Your task to perform on an android device: Open ESPN.com Image 0: 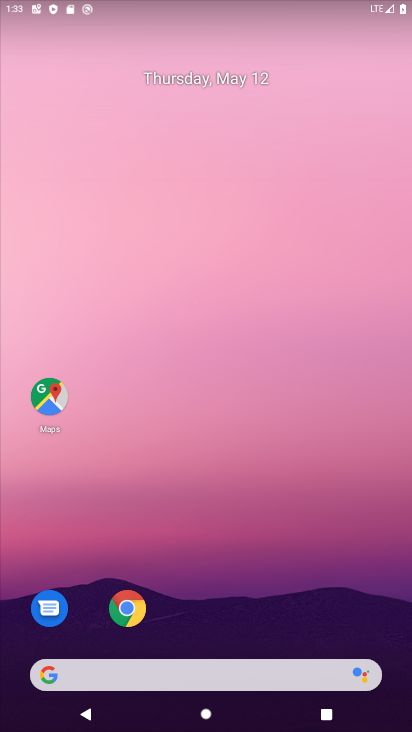
Step 0: click (132, 615)
Your task to perform on an android device: Open ESPN.com Image 1: 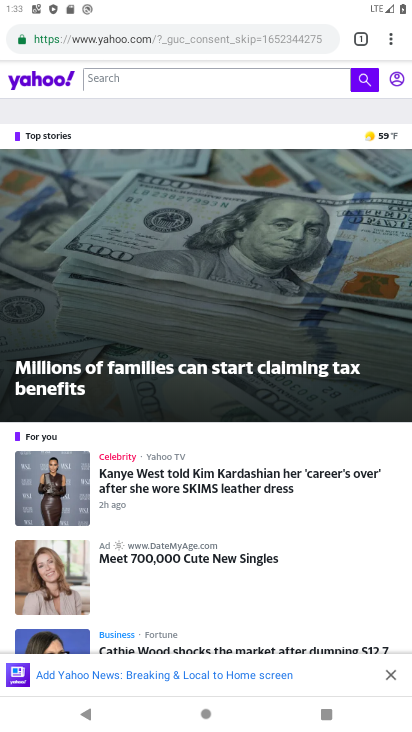
Step 1: click (103, 40)
Your task to perform on an android device: Open ESPN.com Image 2: 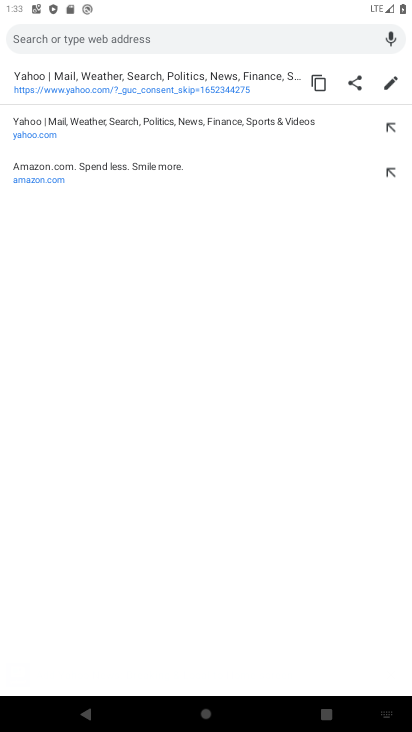
Step 2: type "espn.com"
Your task to perform on an android device: Open ESPN.com Image 3: 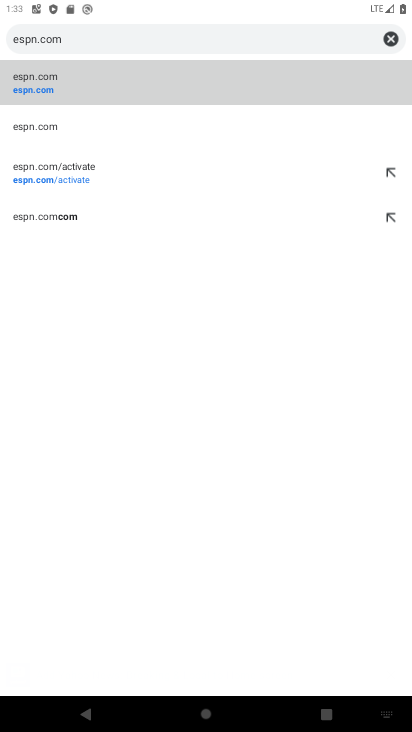
Step 3: click (34, 91)
Your task to perform on an android device: Open ESPN.com Image 4: 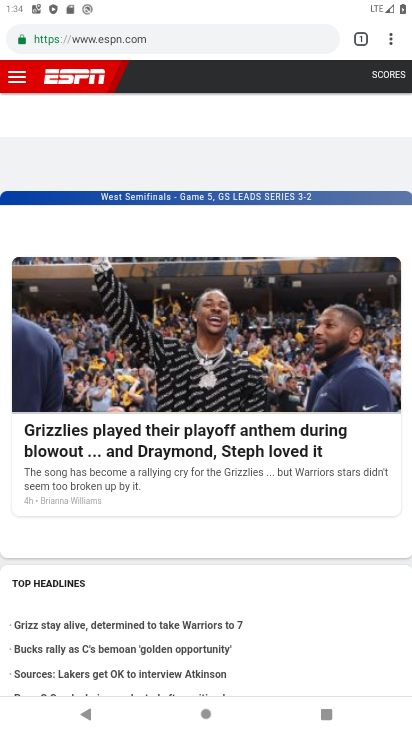
Step 4: task complete